Your task to perform on an android device: Clear the shopping cart on newegg. Search for macbook pro 13 inch on newegg, select the first entry, add it to the cart, then select checkout. Image 0: 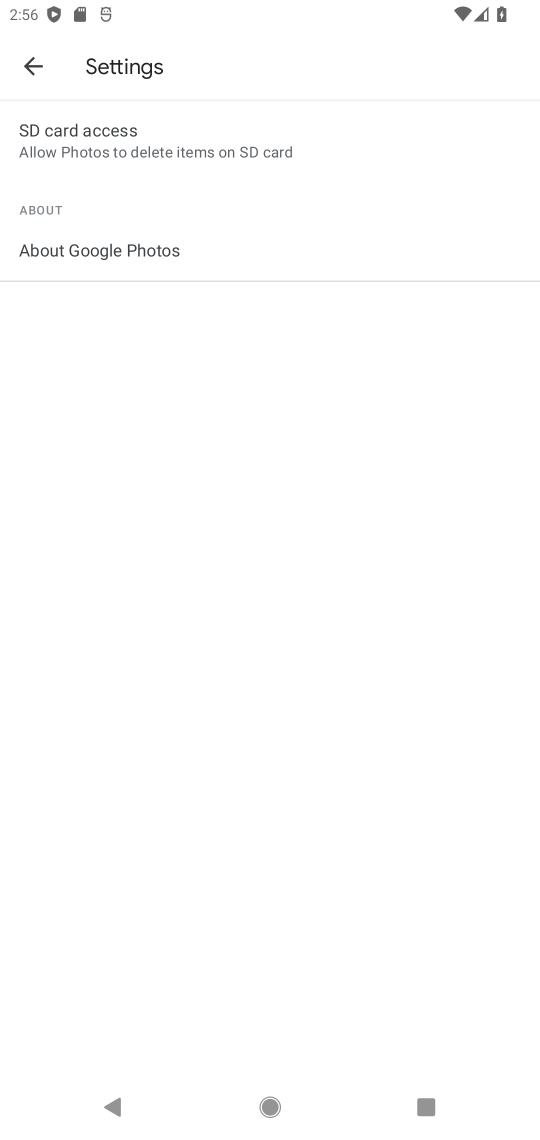
Step 0: press home button
Your task to perform on an android device: Clear the shopping cart on newegg. Search for macbook pro 13 inch on newegg, select the first entry, add it to the cart, then select checkout. Image 1: 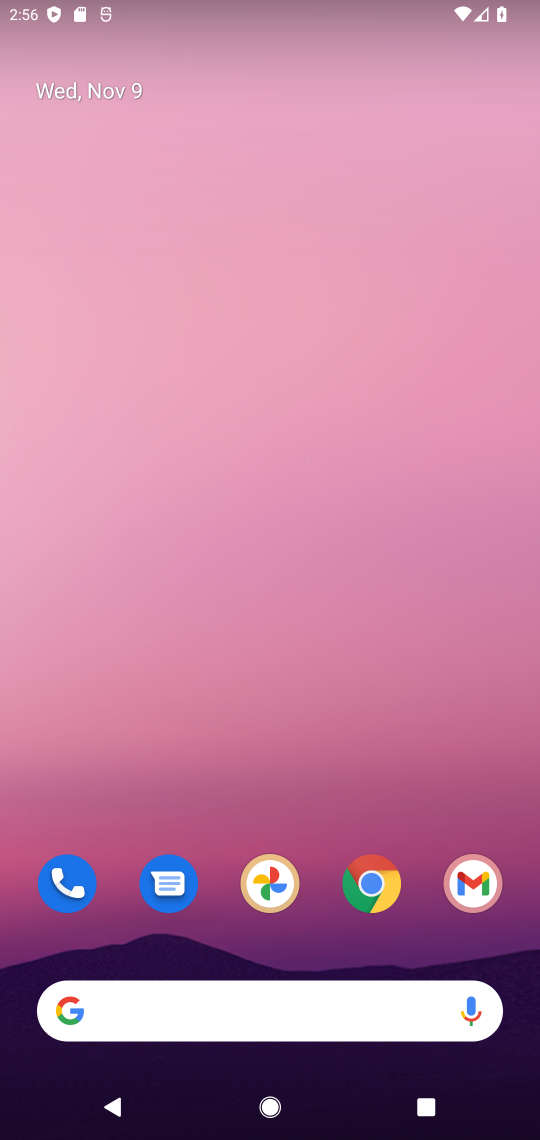
Step 1: click (373, 866)
Your task to perform on an android device: Clear the shopping cart on newegg. Search for macbook pro 13 inch on newegg, select the first entry, add it to the cart, then select checkout. Image 2: 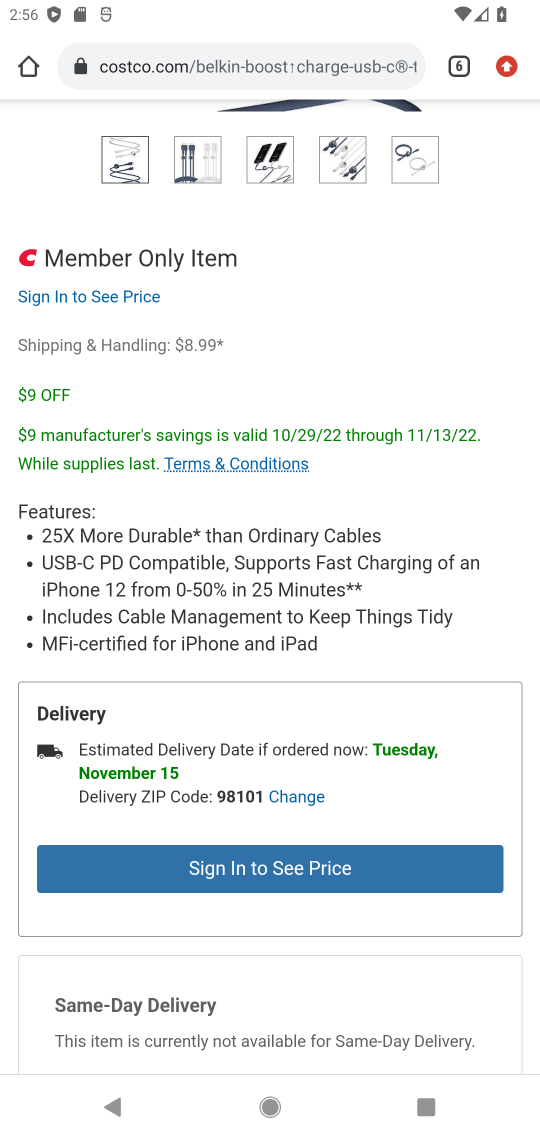
Step 2: click (449, 62)
Your task to perform on an android device: Clear the shopping cart on newegg. Search for macbook pro 13 inch on newegg, select the first entry, add it to the cart, then select checkout. Image 3: 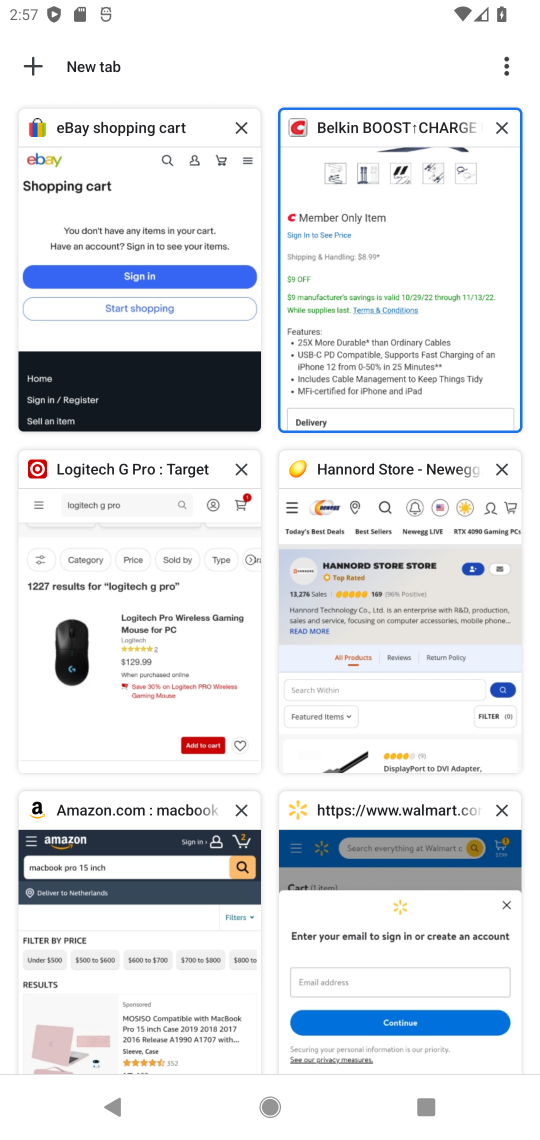
Step 3: click (31, 66)
Your task to perform on an android device: Clear the shopping cart on newegg. Search for macbook pro 13 inch on newegg, select the first entry, add it to the cart, then select checkout. Image 4: 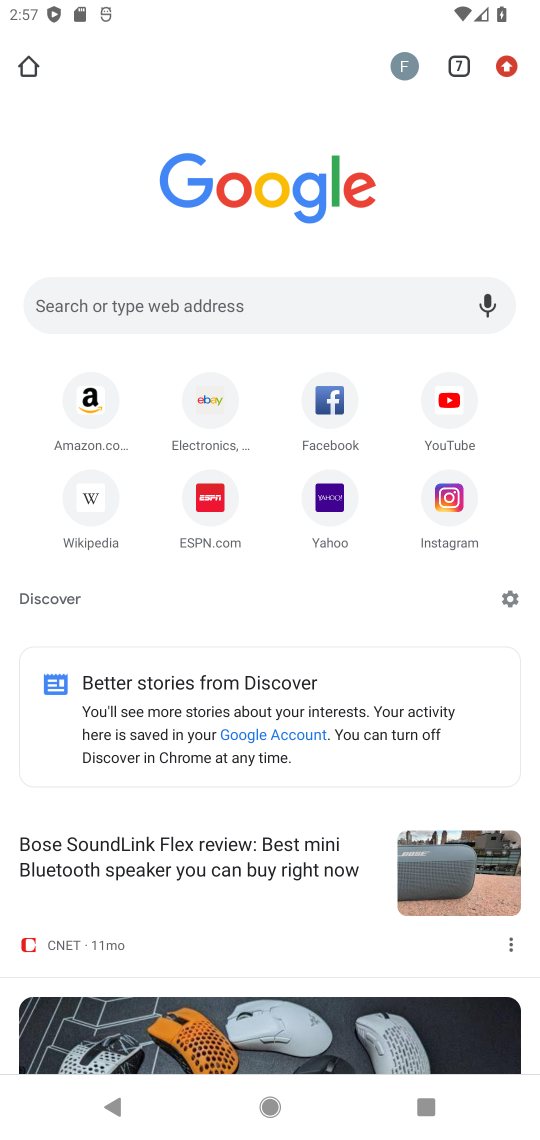
Step 4: click (212, 306)
Your task to perform on an android device: Clear the shopping cart on newegg. Search for macbook pro 13 inch on newegg, select the first entry, add it to the cart, then select checkout. Image 5: 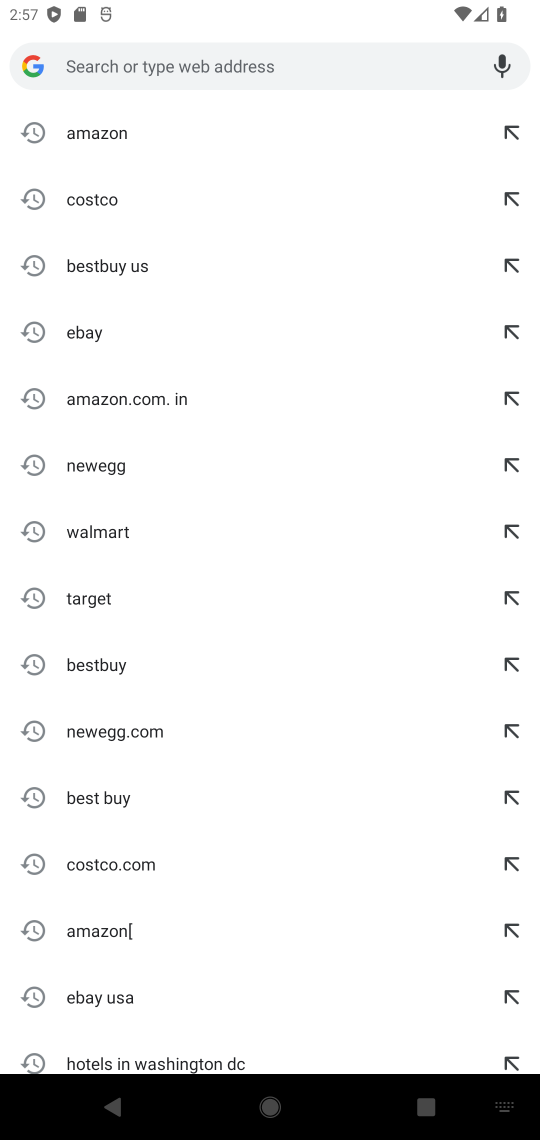
Step 5: click (106, 456)
Your task to perform on an android device: Clear the shopping cart on newegg. Search for macbook pro 13 inch on newegg, select the first entry, add it to the cart, then select checkout. Image 6: 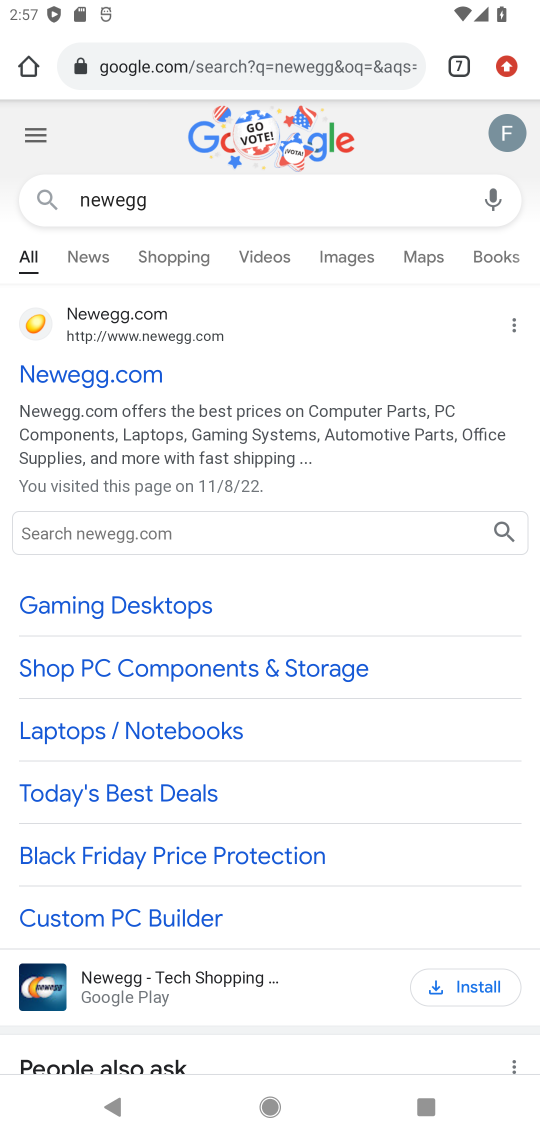
Step 6: click (86, 537)
Your task to perform on an android device: Clear the shopping cart on newegg. Search for macbook pro 13 inch on newegg, select the first entry, add it to the cart, then select checkout. Image 7: 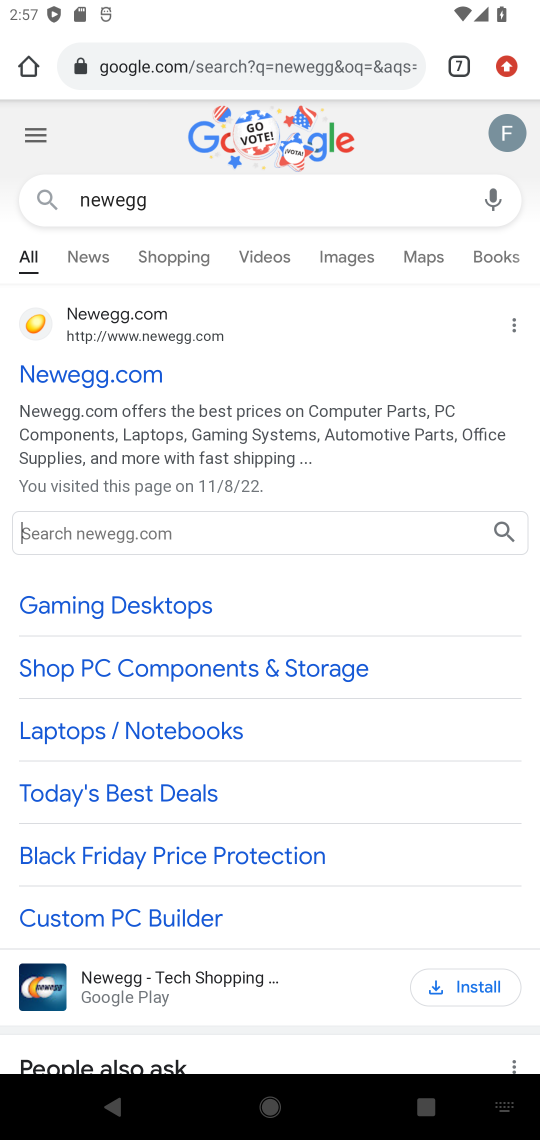
Step 7: type "macbook pro 13 inch"
Your task to perform on an android device: Clear the shopping cart on newegg. Search for macbook pro 13 inch on newegg, select the first entry, add it to the cart, then select checkout. Image 8: 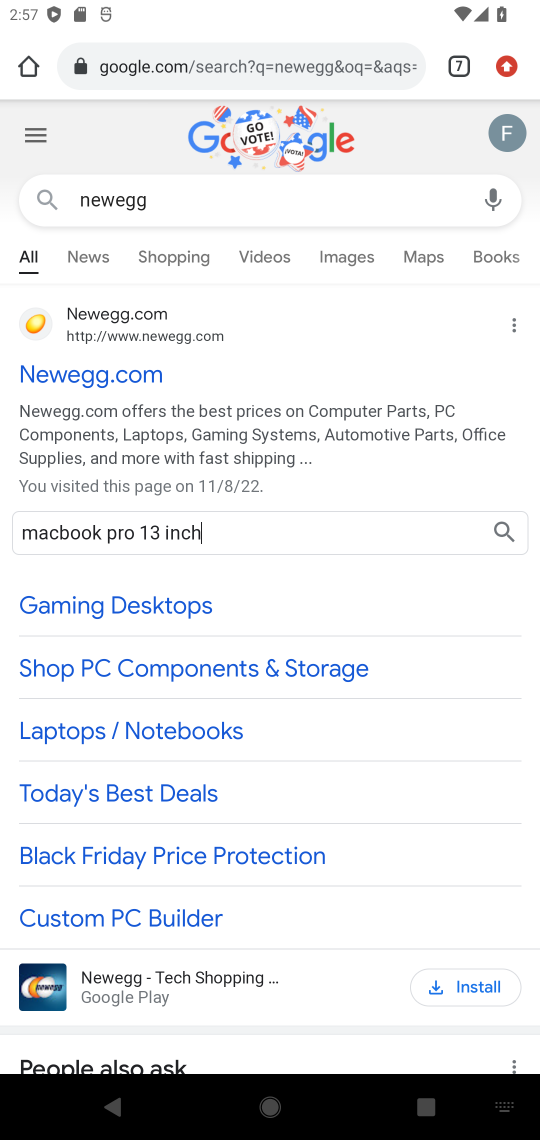
Step 8: click (508, 527)
Your task to perform on an android device: Clear the shopping cart on newegg. Search for macbook pro 13 inch on newegg, select the first entry, add it to the cart, then select checkout. Image 9: 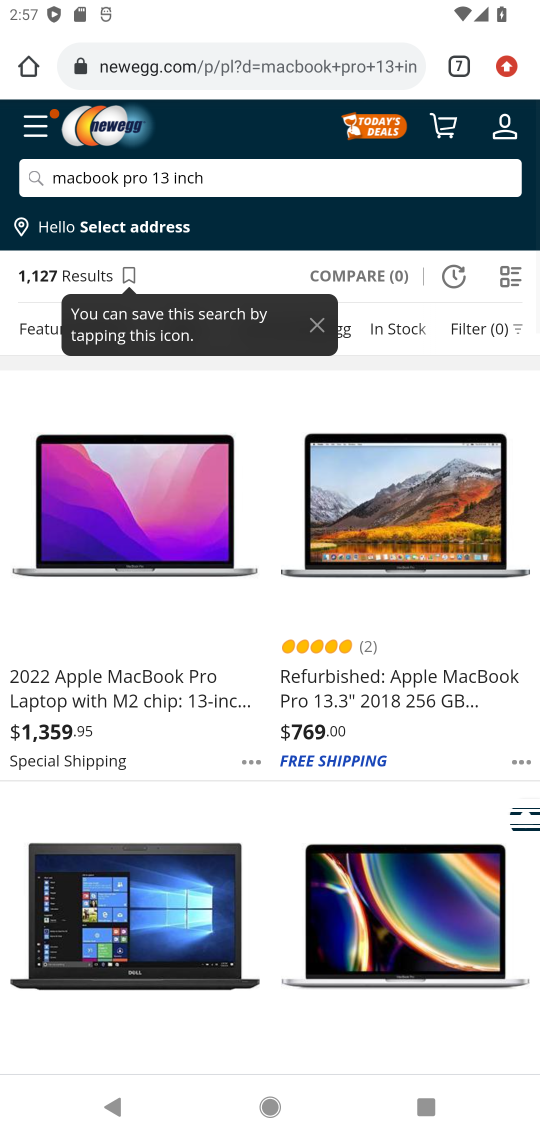
Step 9: click (156, 703)
Your task to perform on an android device: Clear the shopping cart on newegg. Search for macbook pro 13 inch on newegg, select the first entry, add it to the cart, then select checkout. Image 10: 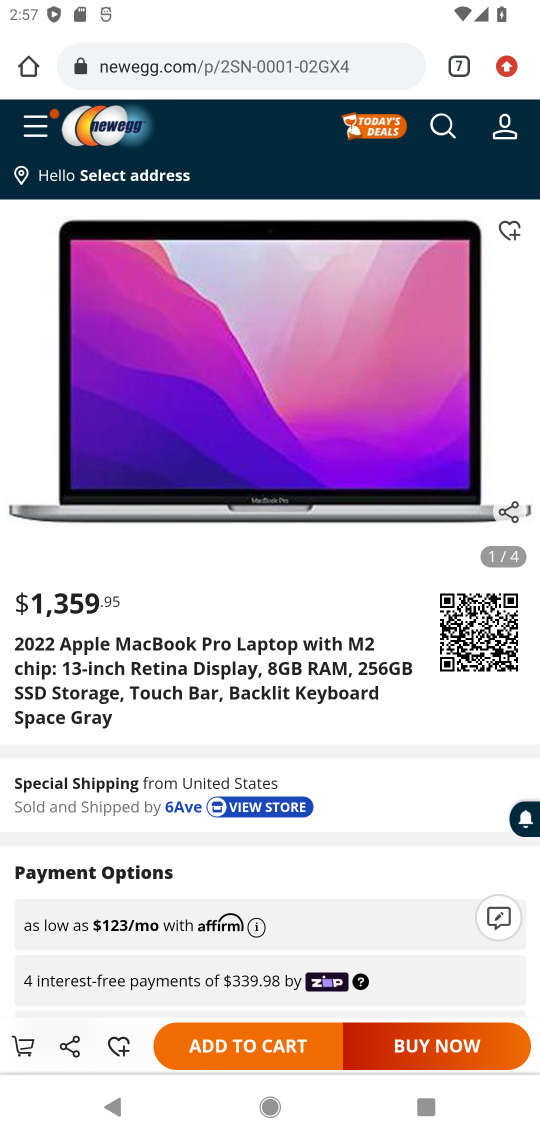
Step 10: click (254, 1051)
Your task to perform on an android device: Clear the shopping cart on newegg. Search for macbook pro 13 inch on newegg, select the first entry, add it to the cart, then select checkout. Image 11: 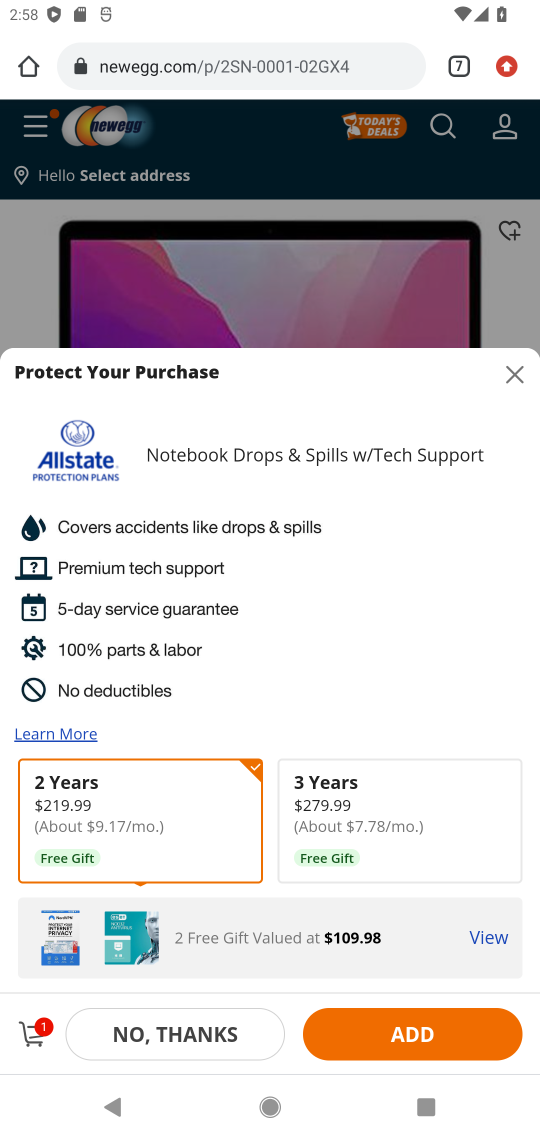
Step 11: task complete